Your task to perform on an android device: Go to notification settings Image 0: 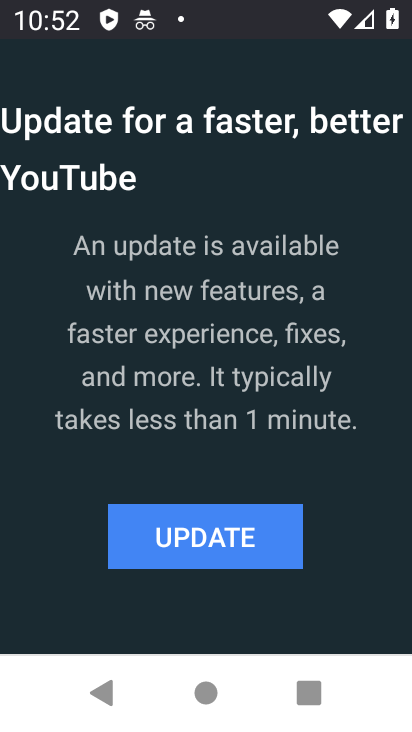
Step 0: press back button
Your task to perform on an android device: Go to notification settings Image 1: 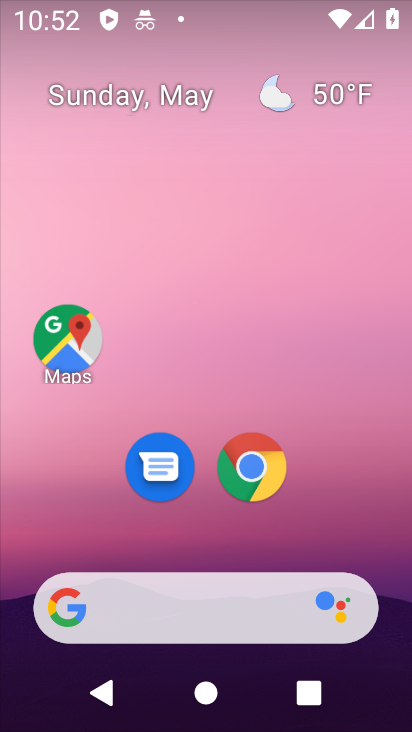
Step 1: drag from (134, 566) to (277, 91)
Your task to perform on an android device: Go to notification settings Image 2: 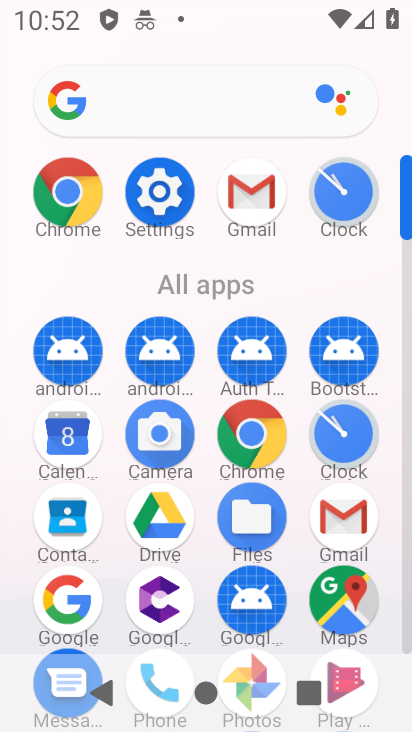
Step 2: click (274, 648)
Your task to perform on an android device: Go to notification settings Image 3: 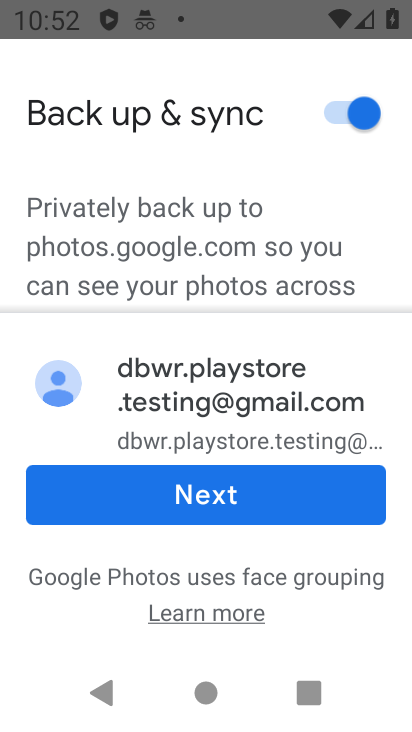
Step 3: press back button
Your task to perform on an android device: Go to notification settings Image 4: 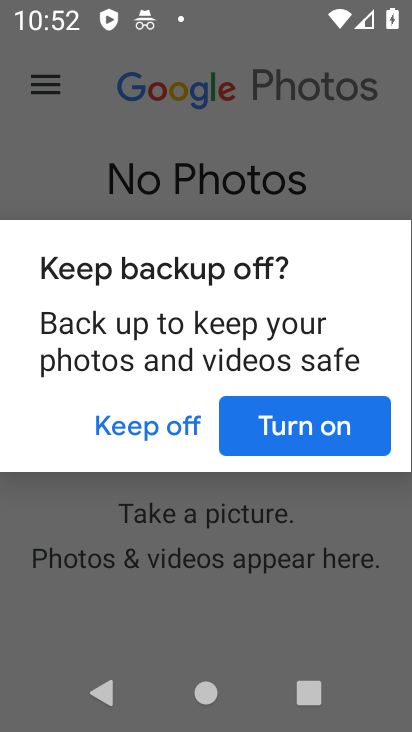
Step 4: press back button
Your task to perform on an android device: Go to notification settings Image 5: 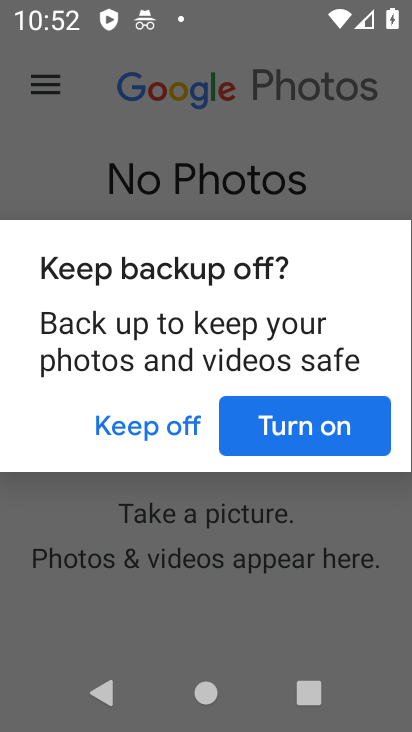
Step 5: press home button
Your task to perform on an android device: Go to notification settings Image 6: 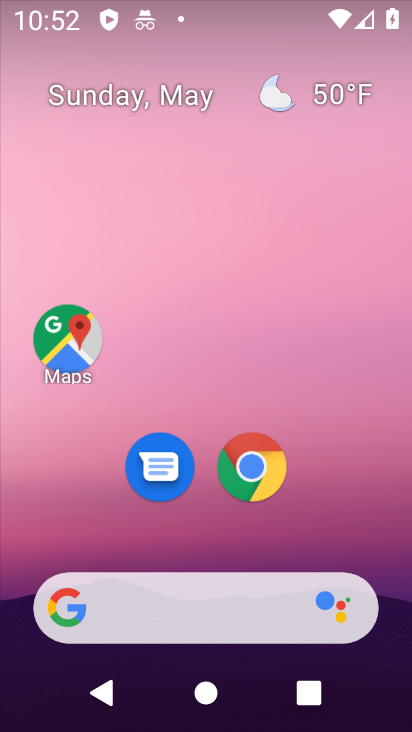
Step 6: drag from (208, 564) to (232, 316)
Your task to perform on an android device: Go to notification settings Image 7: 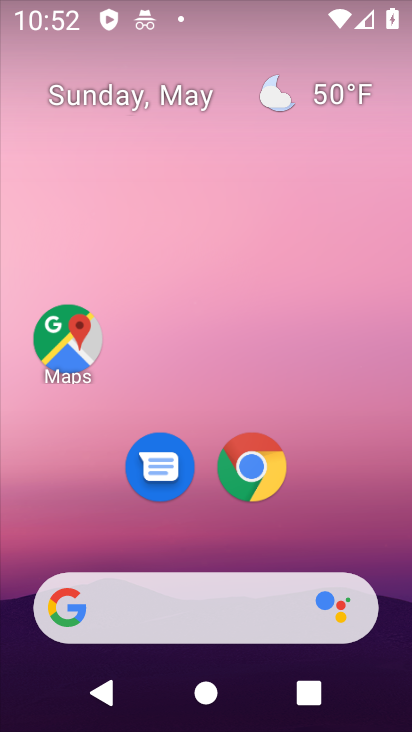
Step 7: click (157, 567)
Your task to perform on an android device: Go to notification settings Image 8: 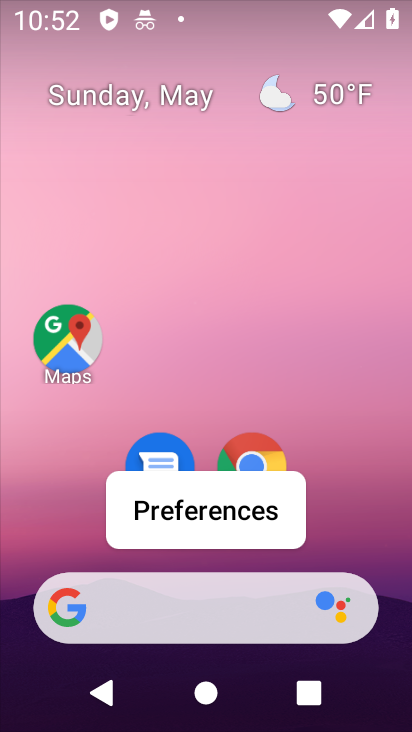
Step 8: drag from (157, 567) to (297, 81)
Your task to perform on an android device: Go to notification settings Image 9: 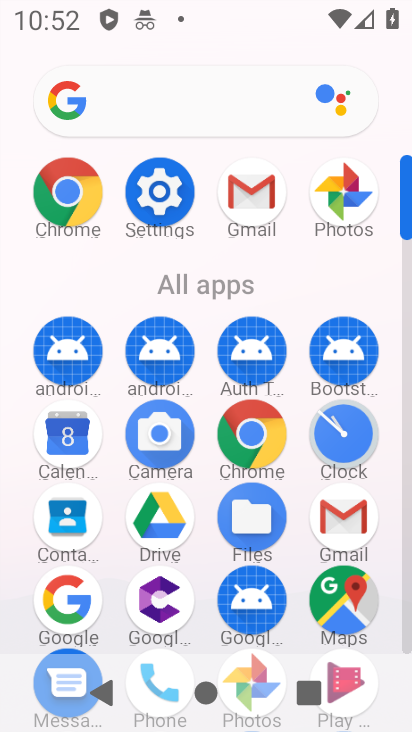
Step 9: drag from (198, 658) to (236, 478)
Your task to perform on an android device: Go to notification settings Image 10: 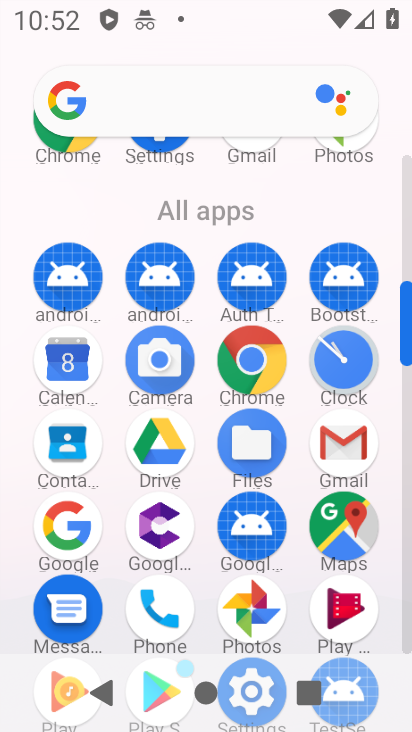
Step 10: drag from (363, 588) to (379, 397)
Your task to perform on an android device: Go to notification settings Image 11: 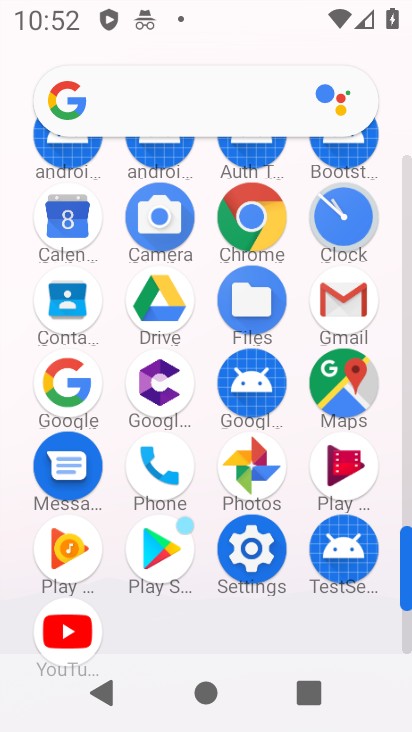
Step 11: click (260, 552)
Your task to perform on an android device: Go to notification settings Image 12: 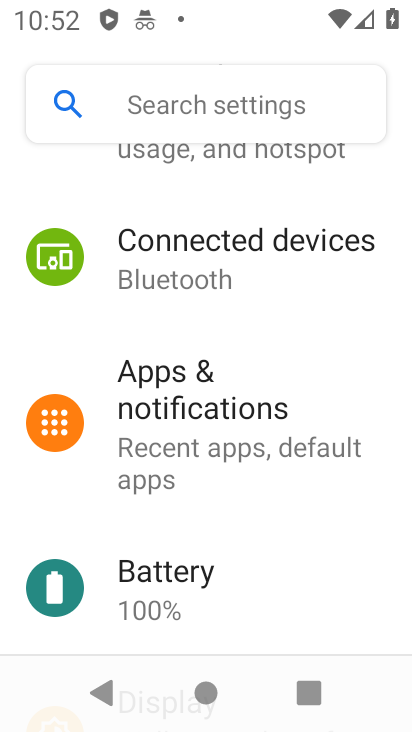
Step 12: click (241, 473)
Your task to perform on an android device: Go to notification settings Image 13: 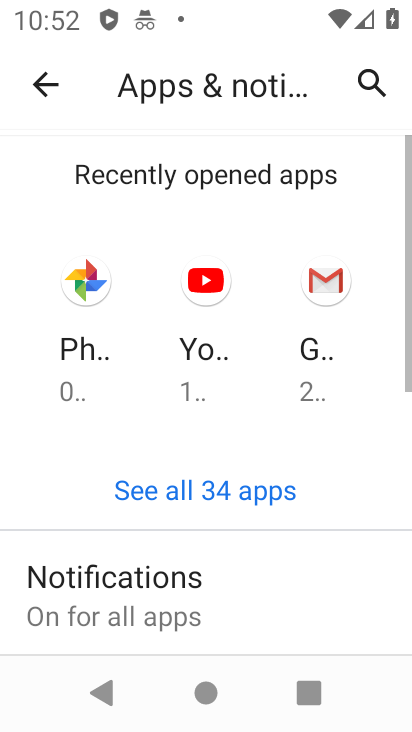
Step 13: click (228, 584)
Your task to perform on an android device: Go to notification settings Image 14: 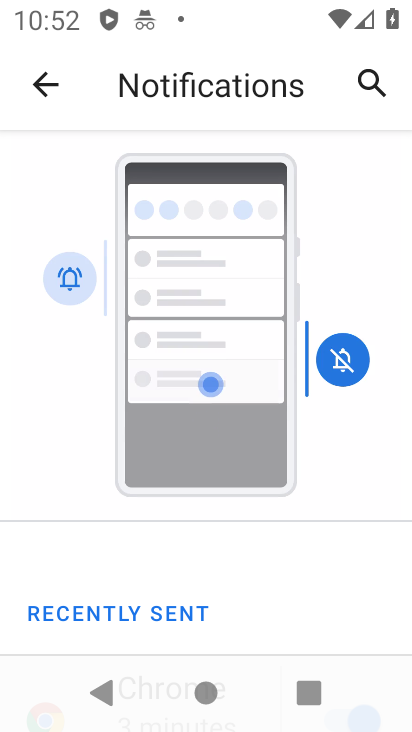
Step 14: drag from (270, 431) to (306, 312)
Your task to perform on an android device: Go to notification settings Image 15: 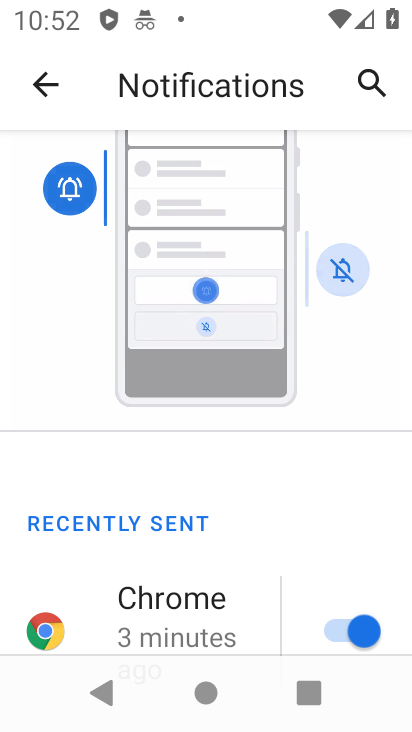
Step 15: drag from (253, 560) to (352, 273)
Your task to perform on an android device: Go to notification settings Image 16: 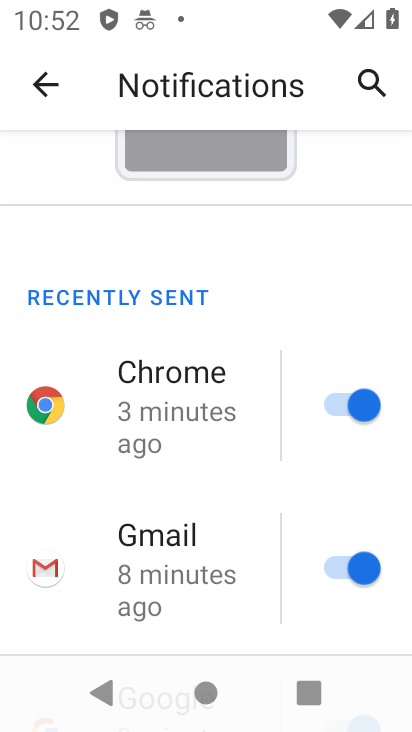
Step 16: click (330, 398)
Your task to perform on an android device: Go to notification settings Image 17: 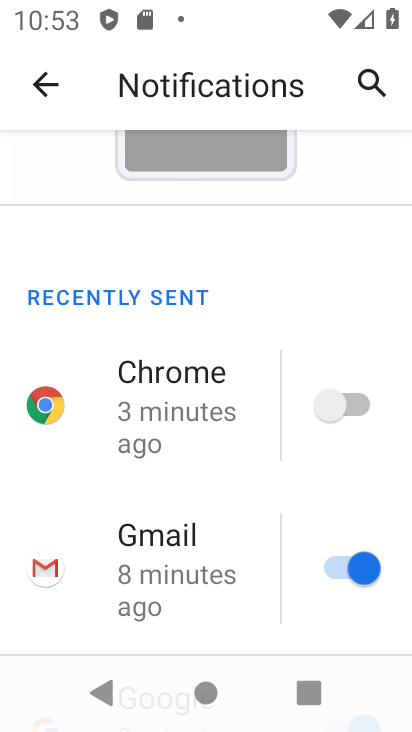
Step 17: drag from (183, 577) to (249, 335)
Your task to perform on an android device: Go to notification settings Image 18: 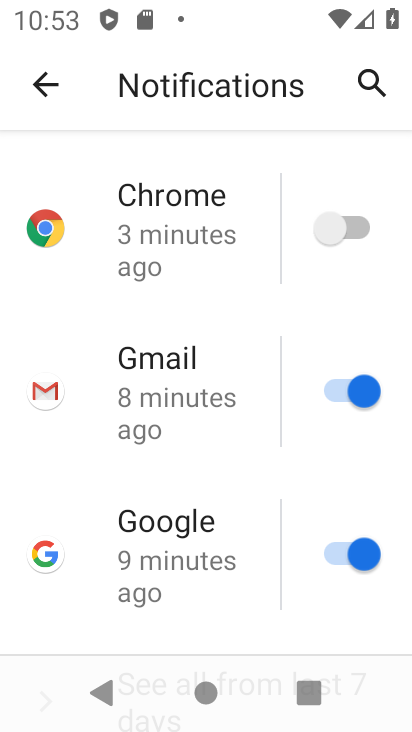
Step 18: click (362, 556)
Your task to perform on an android device: Go to notification settings Image 19: 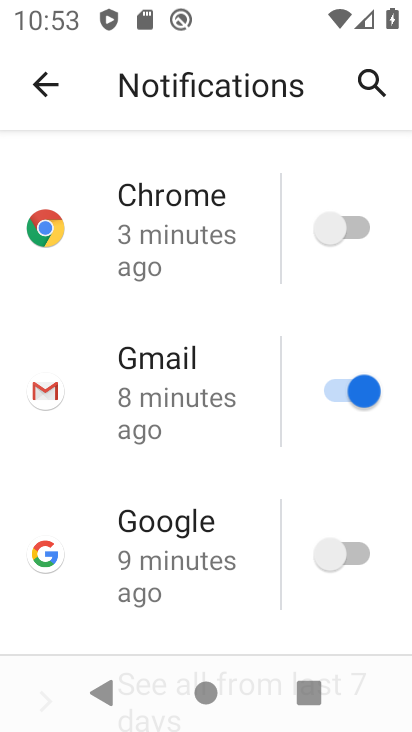
Step 19: drag from (284, 550) to (311, 340)
Your task to perform on an android device: Go to notification settings Image 20: 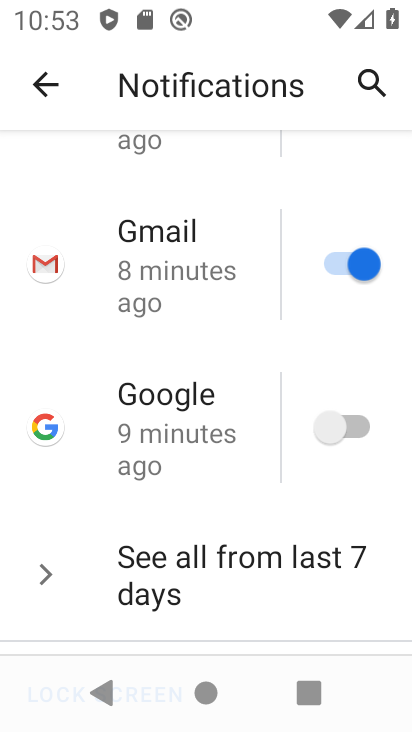
Step 20: drag from (254, 561) to (333, 247)
Your task to perform on an android device: Go to notification settings Image 21: 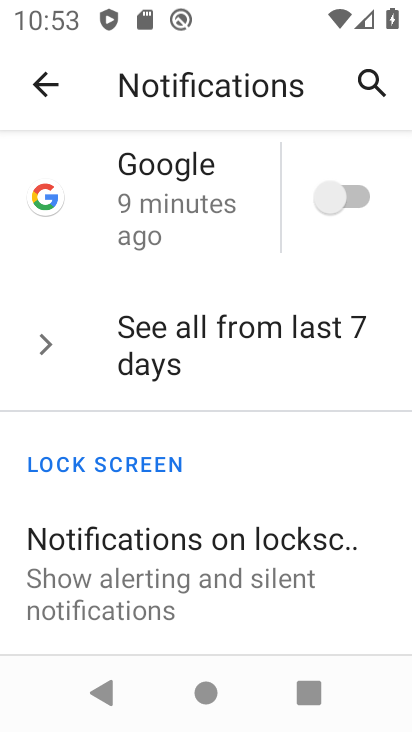
Step 21: click (191, 601)
Your task to perform on an android device: Go to notification settings Image 22: 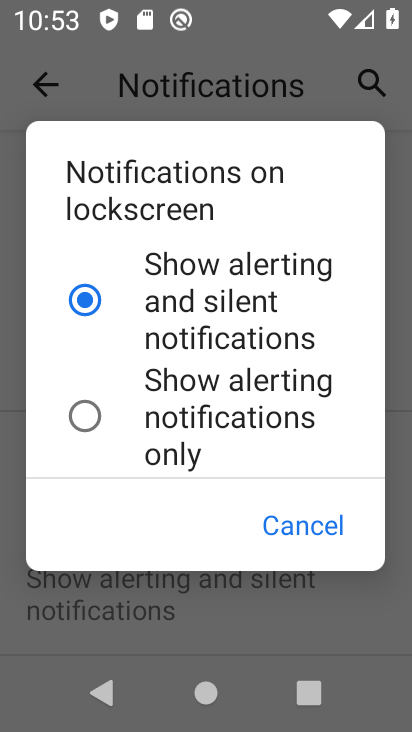
Step 22: click (256, 384)
Your task to perform on an android device: Go to notification settings Image 23: 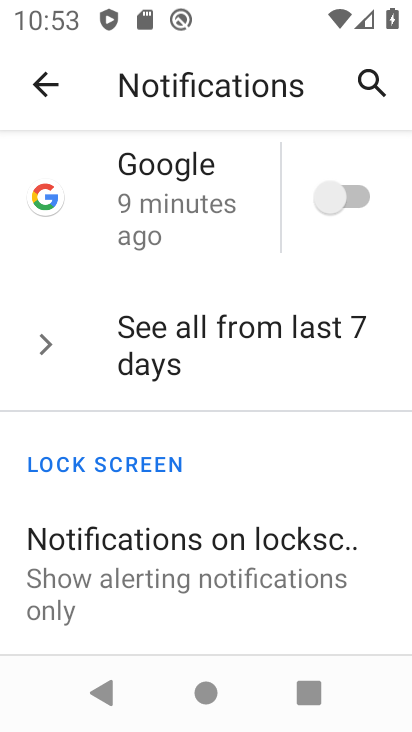
Step 23: drag from (272, 596) to (410, 272)
Your task to perform on an android device: Go to notification settings Image 24: 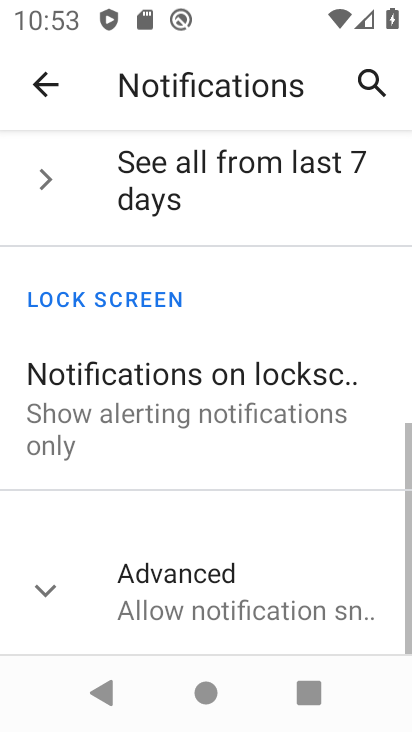
Step 24: click (224, 617)
Your task to perform on an android device: Go to notification settings Image 25: 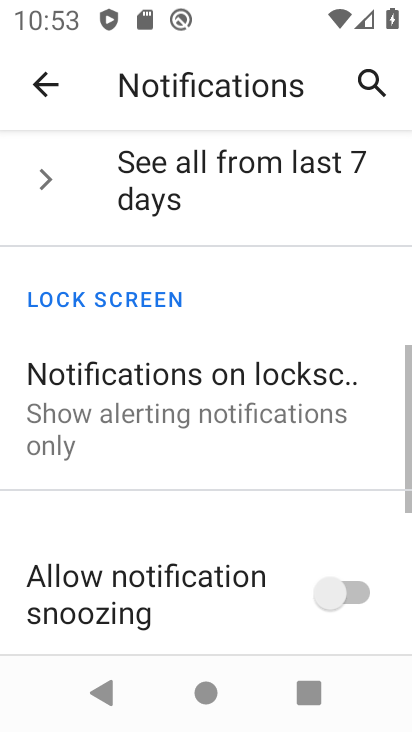
Step 25: drag from (224, 617) to (286, 434)
Your task to perform on an android device: Go to notification settings Image 26: 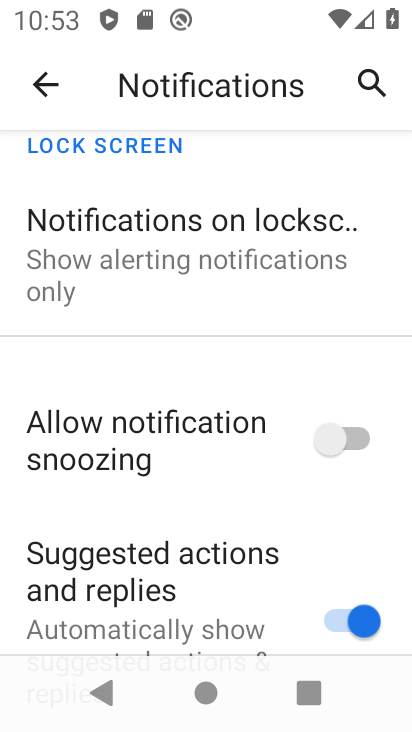
Step 26: click (363, 432)
Your task to perform on an android device: Go to notification settings Image 27: 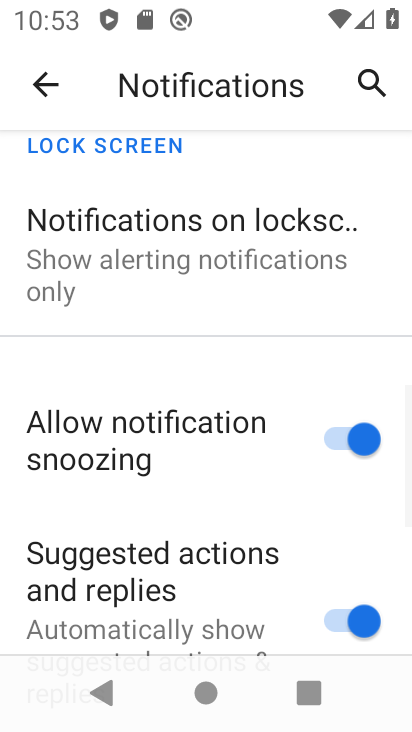
Step 27: click (331, 630)
Your task to perform on an android device: Go to notification settings Image 28: 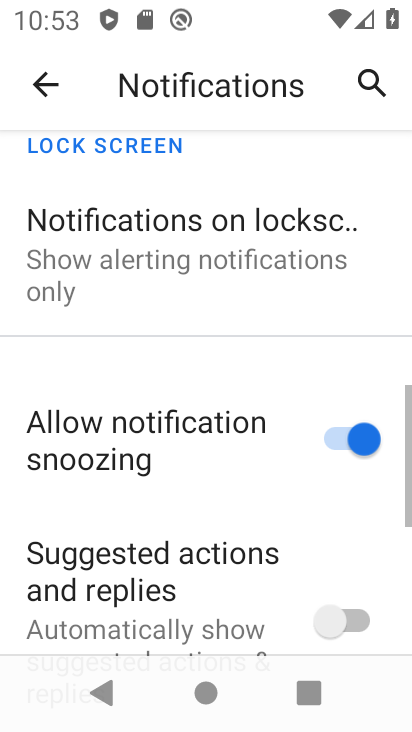
Step 28: drag from (166, 601) to (299, 196)
Your task to perform on an android device: Go to notification settings Image 29: 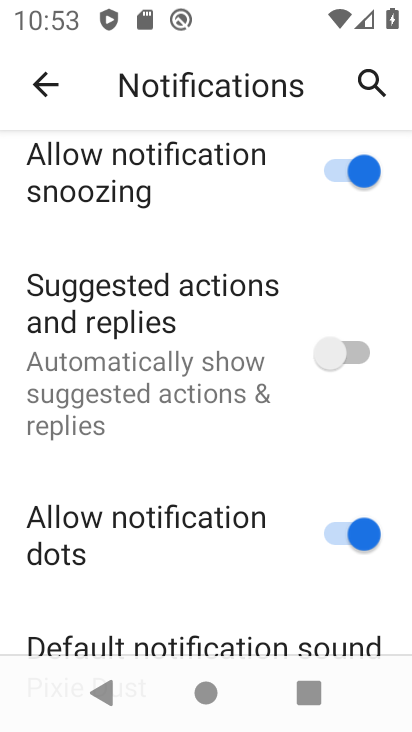
Step 29: click (337, 537)
Your task to perform on an android device: Go to notification settings Image 30: 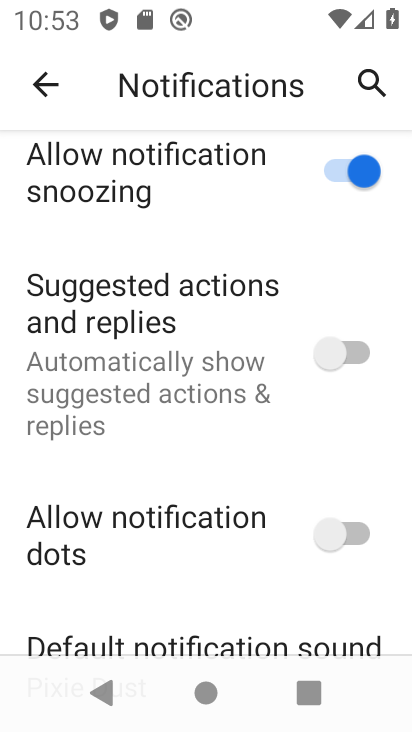
Step 30: task complete